Your task to perform on an android device: Search for bose quietcomfort 35 on newegg, select the first entry, add it to the cart, then select checkout. Image 0: 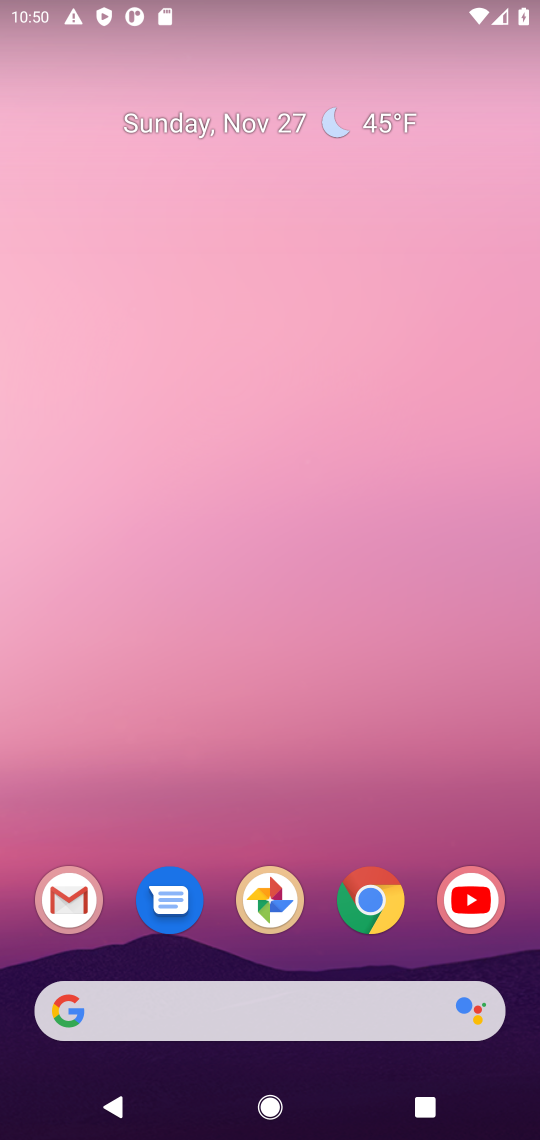
Step 0: click (369, 910)
Your task to perform on an android device: Search for bose quietcomfort 35 on newegg, select the first entry, add it to the cart, then select checkout. Image 1: 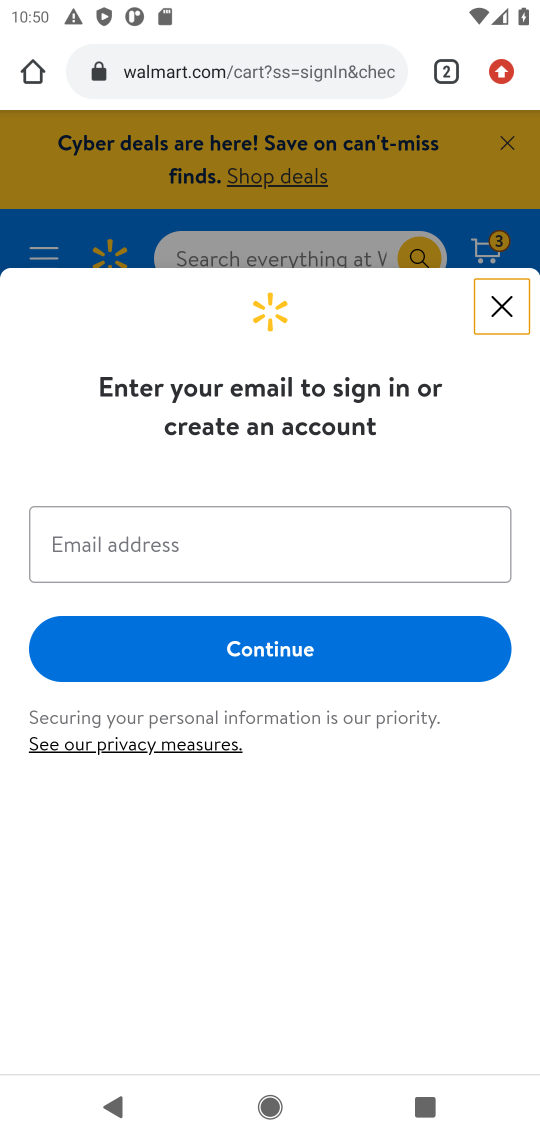
Step 1: click (183, 72)
Your task to perform on an android device: Search for bose quietcomfort 35 on newegg, select the first entry, add it to the cart, then select checkout. Image 2: 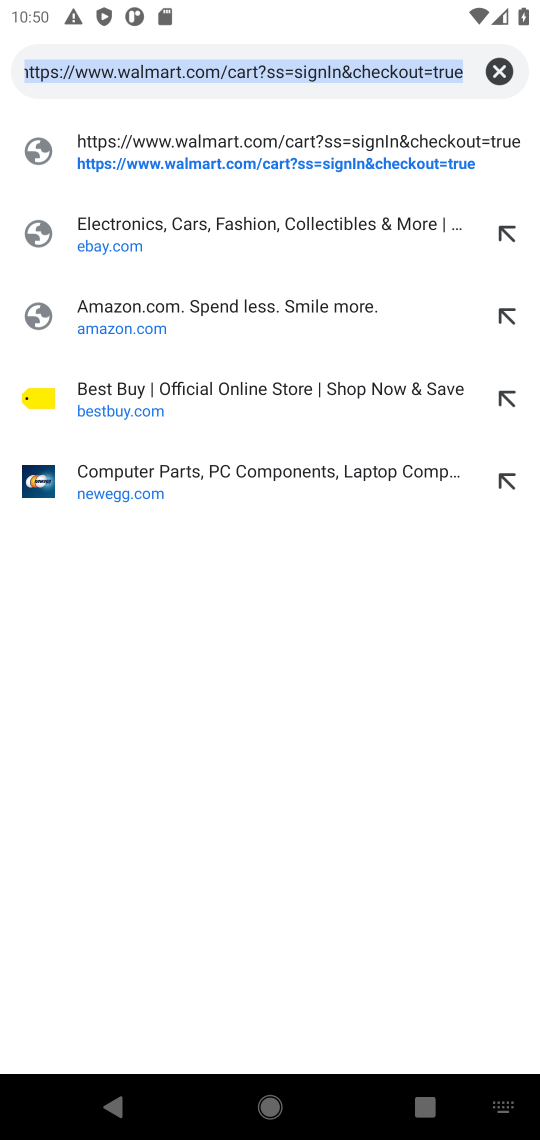
Step 2: click (102, 485)
Your task to perform on an android device: Search for bose quietcomfort 35 on newegg, select the first entry, add it to the cart, then select checkout. Image 3: 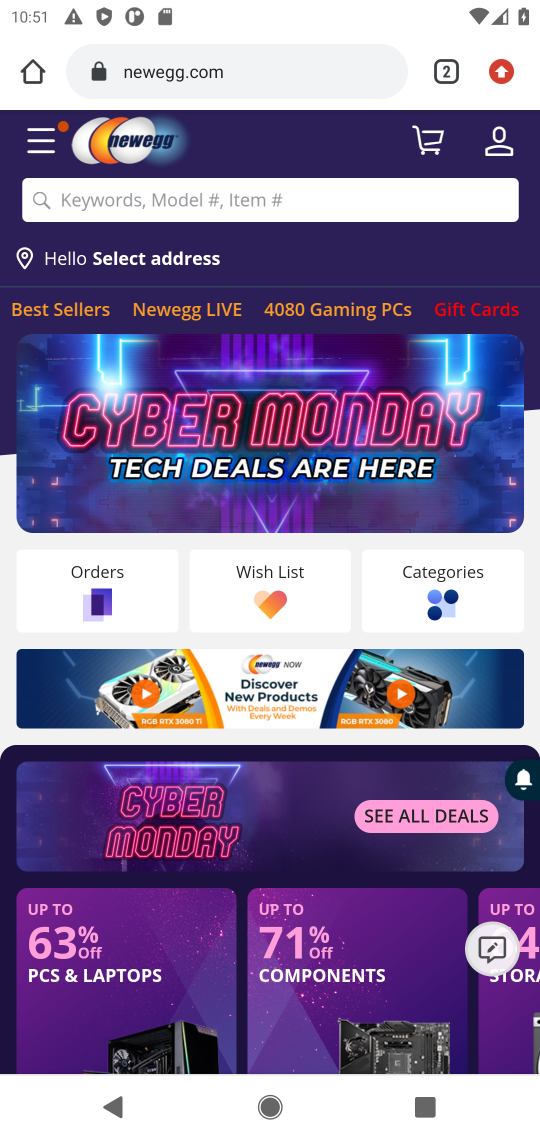
Step 3: click (82, 202)
Your task to perform on an android device: Search for bose quietcomfort 35 on newegg, select the first entry, add it to the cart, then select checkout. Image 4: 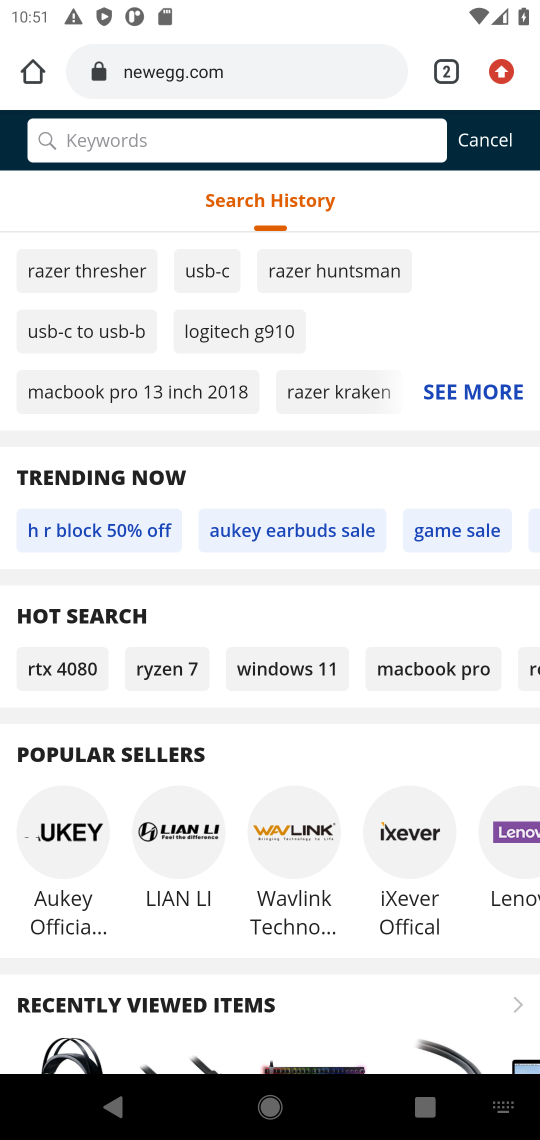
Step 4: click (128, 144)
Your task to perform on an android device: Search for bose quietcomfort 35 on newegg, select the first entry, add it to the cart, then select checkout. Image 5: 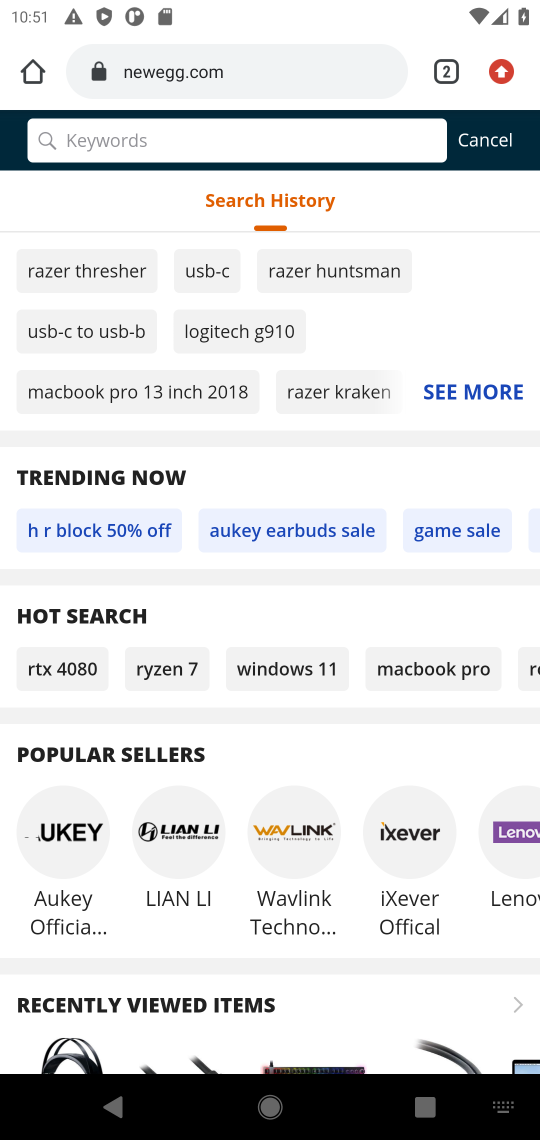
Step 5: type "bose quietcomfort 35"
Your task to perform on an android device: Search for bose quietcomfort 35 on newegg, select the first entry, add it to the cart, then select checkout. Image 6: 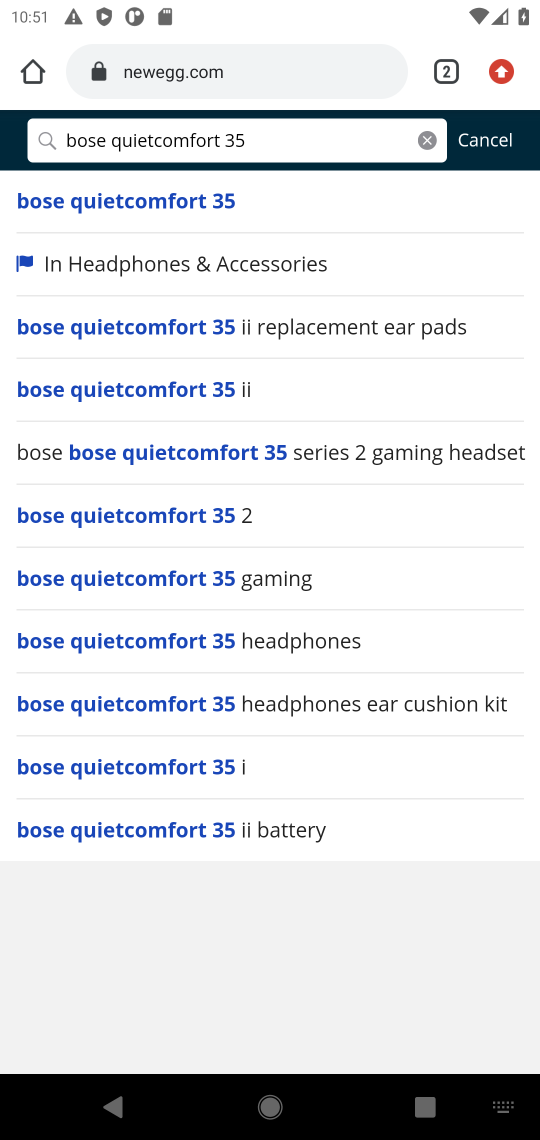
Step 6: click (124, 202)
Your task to perform on an android device: Search for bose quietcomfort 35 on newegg, select the first entry, add it to the cart, then select checkout. Image 7: 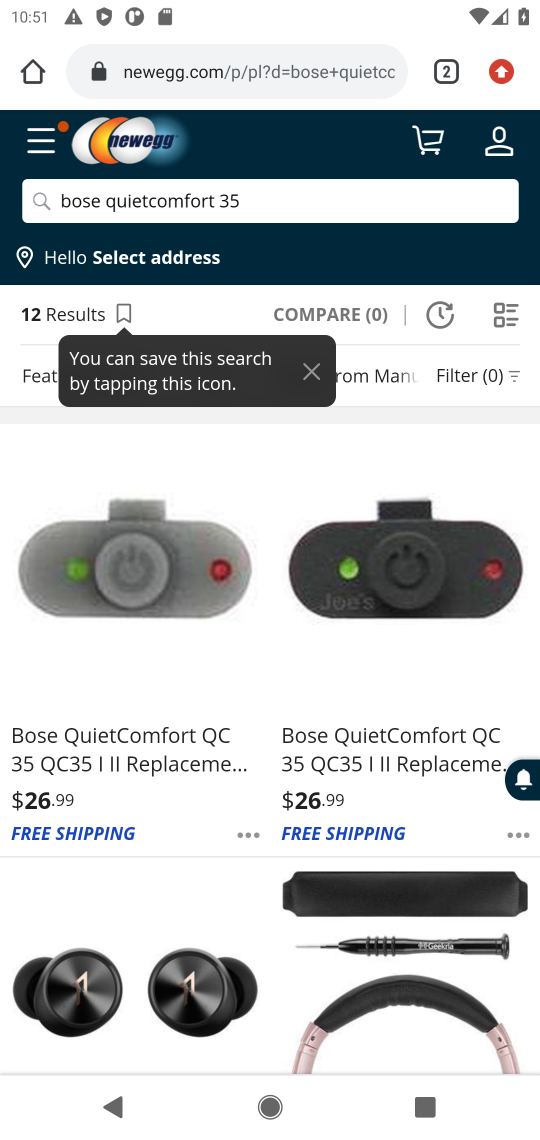
Step 7: click (146, 589)
Your task to perform on an android device: Search for bose quietcomfort 35 on newegg, select the first entry, add it to the cart, then select checkout. Image 8: 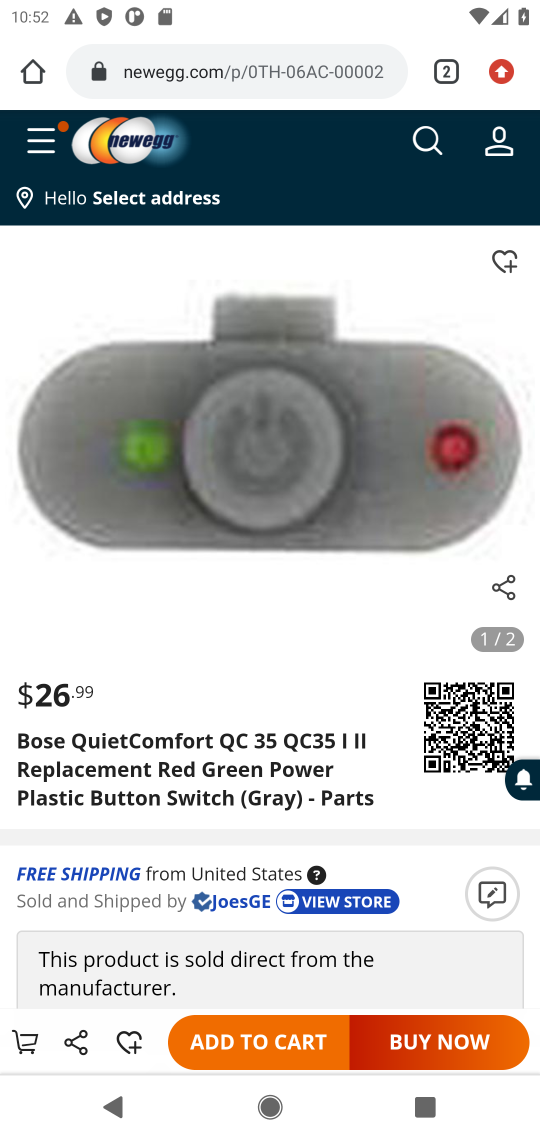
Step 8: click (255, 1038)
Your task to perform on an android device: Search for bose quietcomfort 35 on newegg, select the first entry, add it to the cart, then select checkout. Image 9: 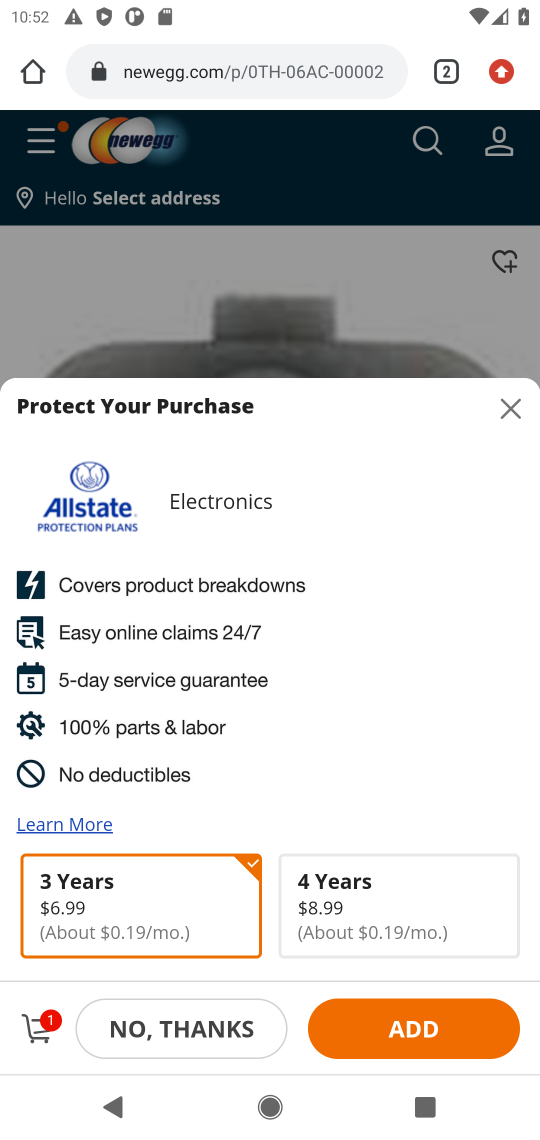
Step 9: click (36, 1030)
Your task to perform on an android device: Search for bose quietcomfort 35 on newegg, select the first entry, add it to the cart, then select checkout. Image 10: 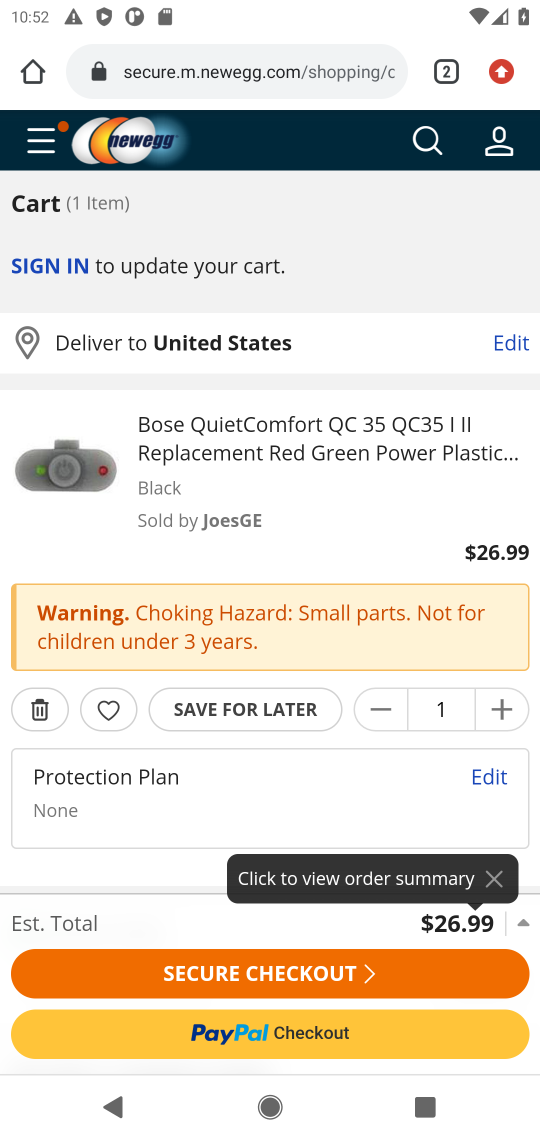
Step 10: click (216, 981)
Your task to perform on an android device: Search for bose quietcomfort 35 on newegg, select the first entry, add it to the cart, then select checkout. Image 11: 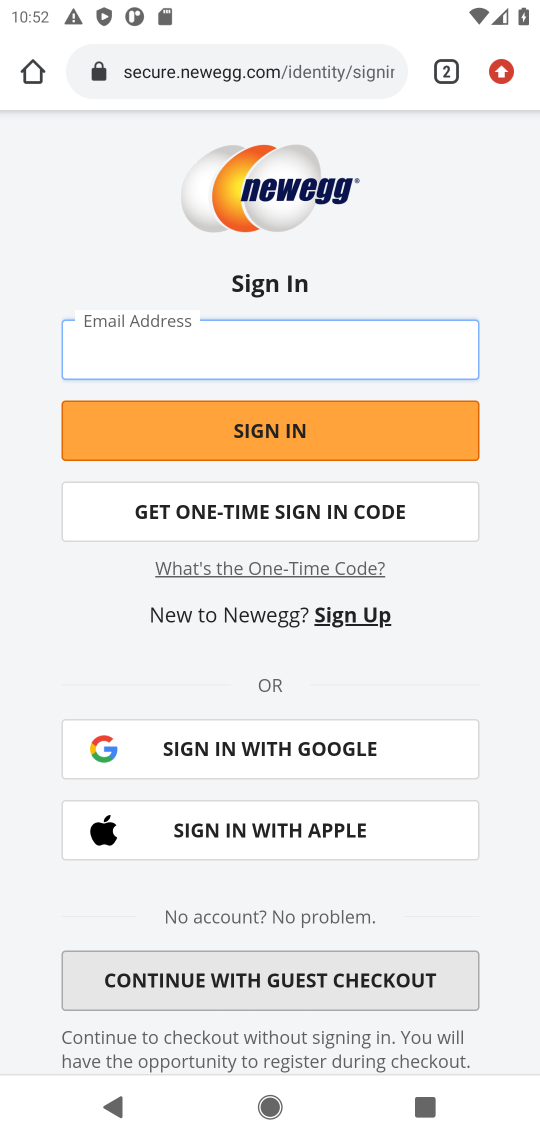
Step 11: task complete